Your task to perform on an android device: turn on the 24-hour format for clock Image 0: 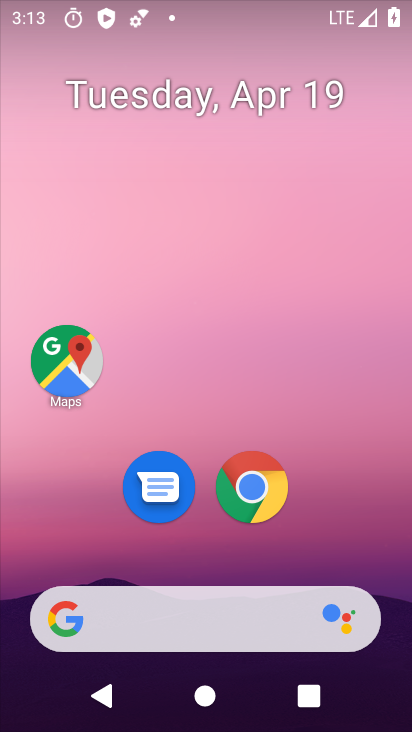
Step 0: drag from (174, 496) to (185, 104)
Your task to perform on an android device: turn on the 24-hour format for clock Image 1: 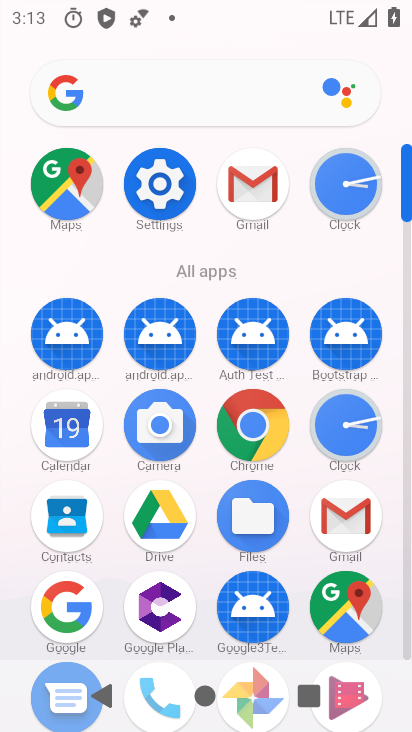
Step 1: click (334, 180)
Your task to perform on an android device: turn on the 24-hour format for clock Image 2: 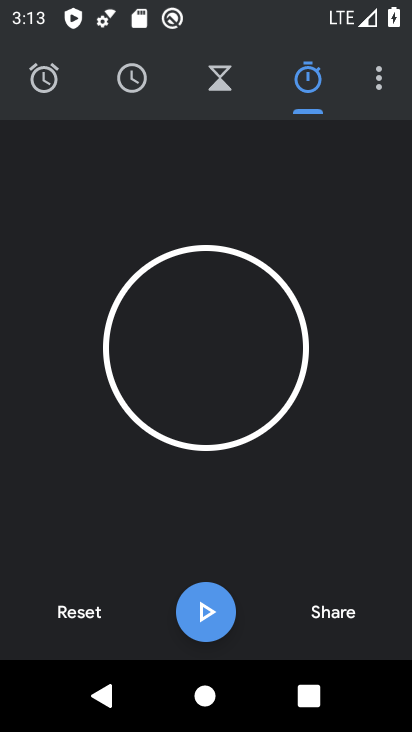
Step 2: click (376, 62)
Your task to perform on an android device: turn on the 24-hour format for clock Image 3: 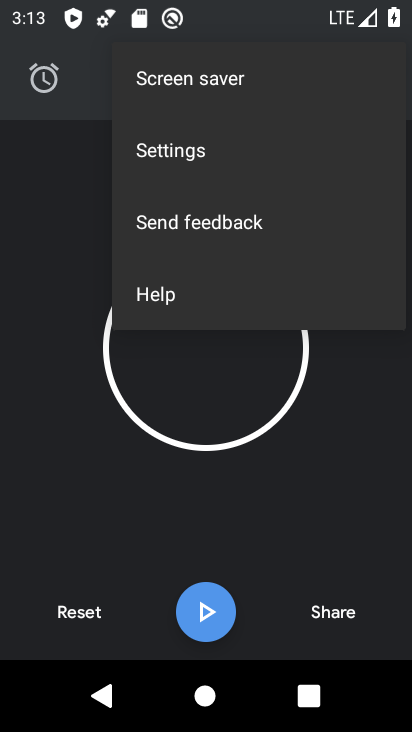
Step 3: click (237, 159)
Your task to perform on an android device: turn on the 24-hour format for clock Image 4: 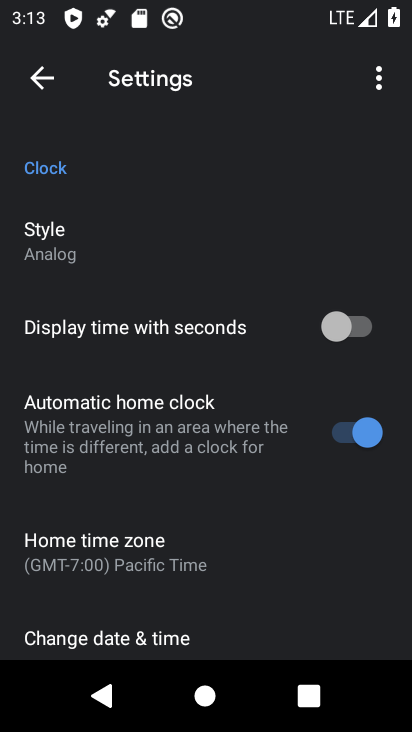
Step 4: drag from (141, 566) to (207, 205)
Your task to perform on an android device: turn on the 24-hour format for clock Image 5: 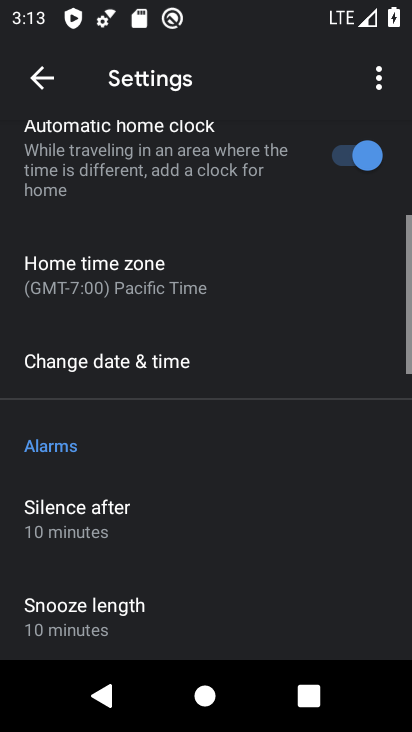
Step 5: click (95, 377)
Your task to perform on an android device: turn on the 24-hour format for clock Image 6: 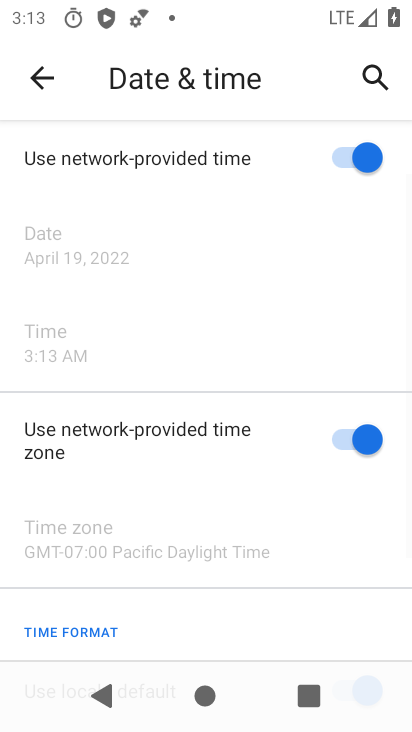
Step 6: drag from (166, 595) to (307, 16)
Your task to perform on an android device: turn on the 24-hour format for clock Image 7: 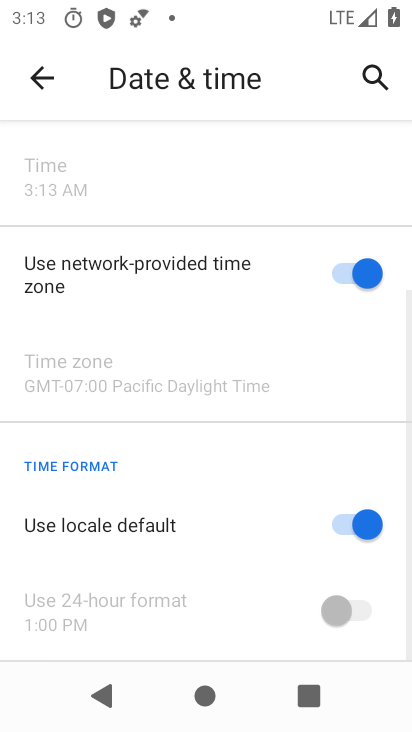
Step 7: click (351, 516)
Your task to perform on an android device: turn on the 24-hour format for clock Image 8: 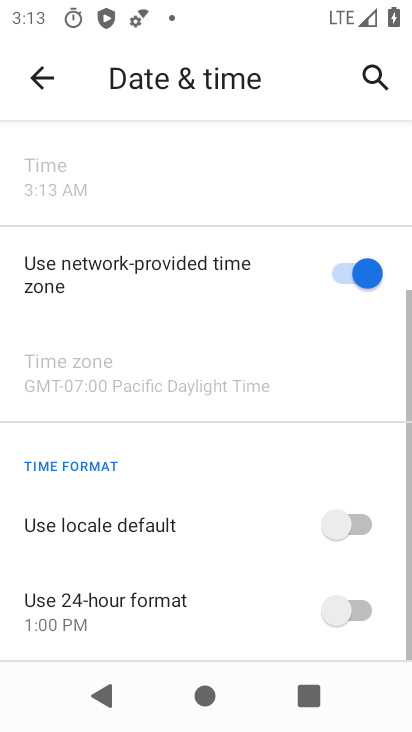
Step 8: click (348, 612)
Your task to perform on an android device: turn on the 24-hour format for clock Image 9: 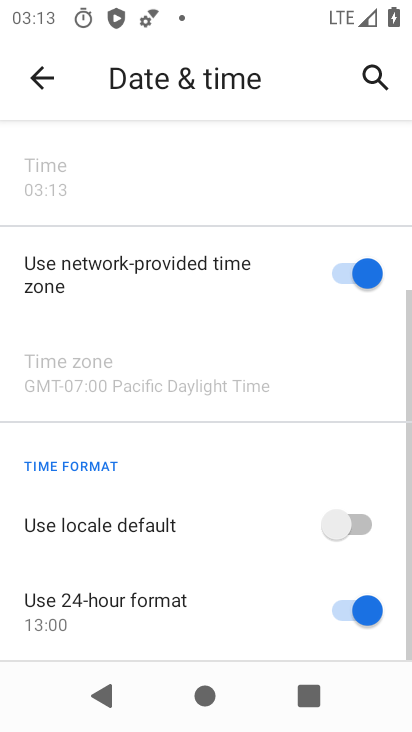
Step 9: task complete